Your task to perform on an android device: Show me popular videos on Youtube Image 0: 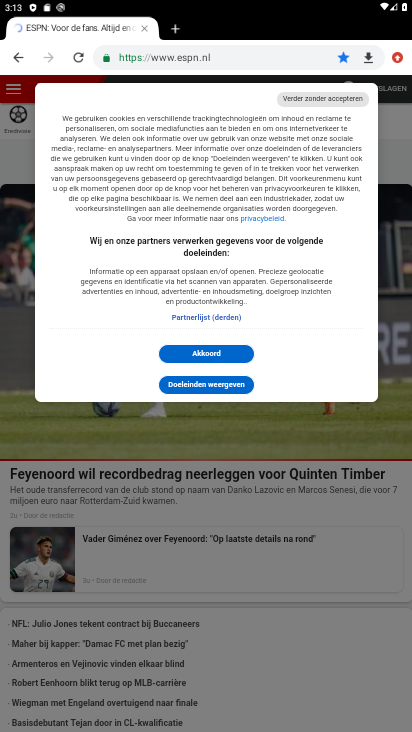
Step 0: press home button
Your task to perform on an android device: Show me popular videos on Youtube Image 1: 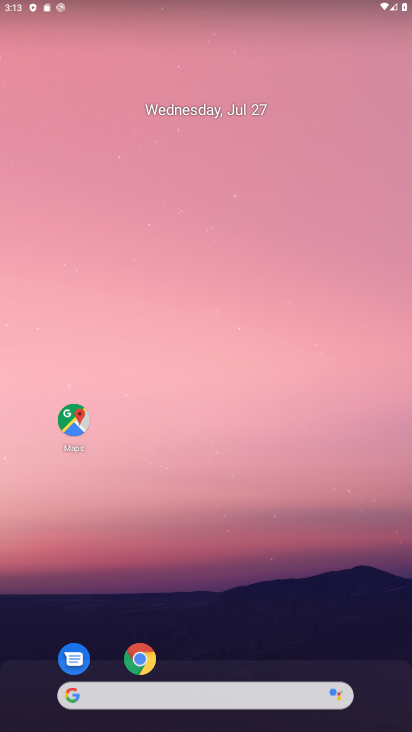
Step 1: drag from (368, 626) to (231, 42)
Your task to perform on an android device: Show me popular videos on Youtube Image 2: 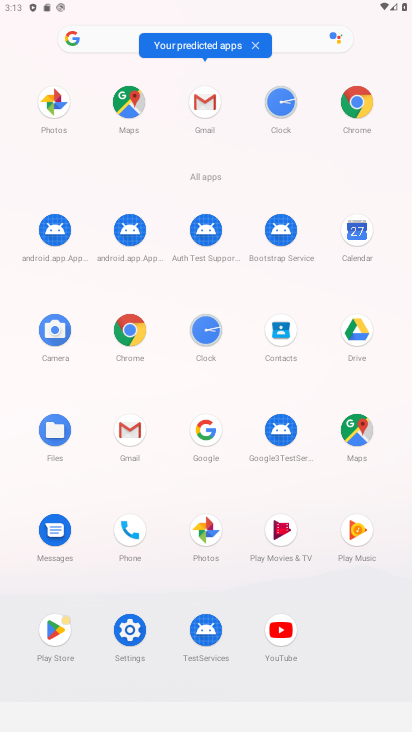
Step 2: click (285, 626)
Your task to perform on an android device: Show me popular videos on Youtube Image 3: 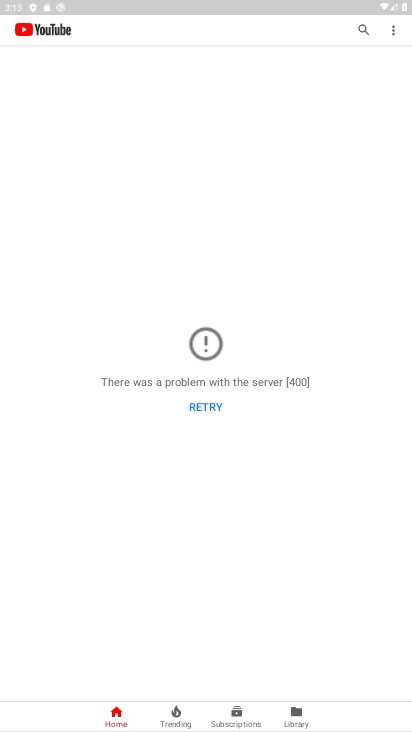
Step 3: click (298, 712)
Your task to perform on an android device: Show me popular videos on Youtube Image 4: 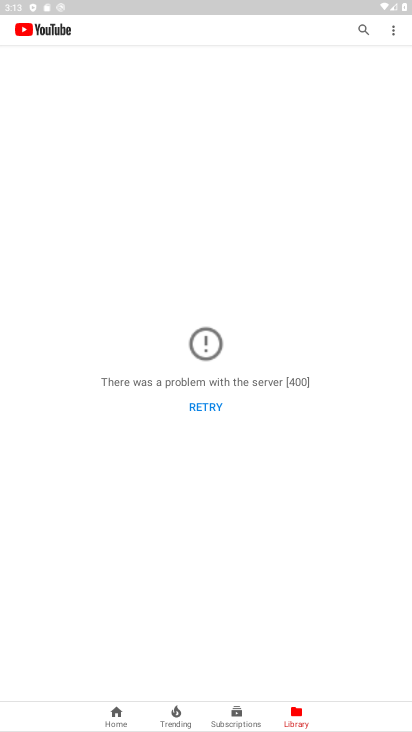
Step 4: click (179, 715)
Your task to perform on an android device: Show me popular videos on Youtube Image 5: 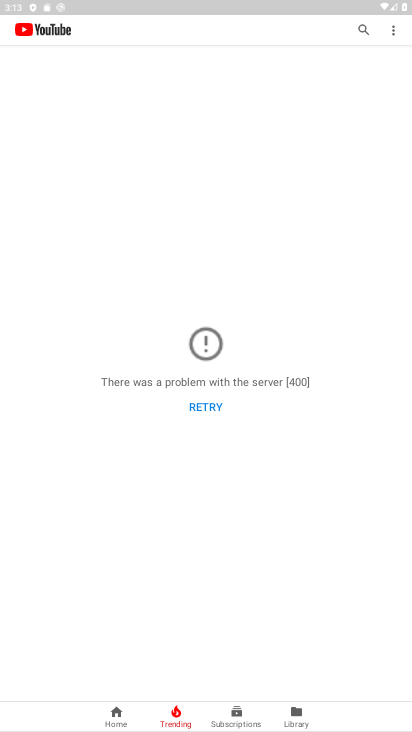
Step 5: task complete